Your task to perform on an android device: Open accessibility settings Image 0: 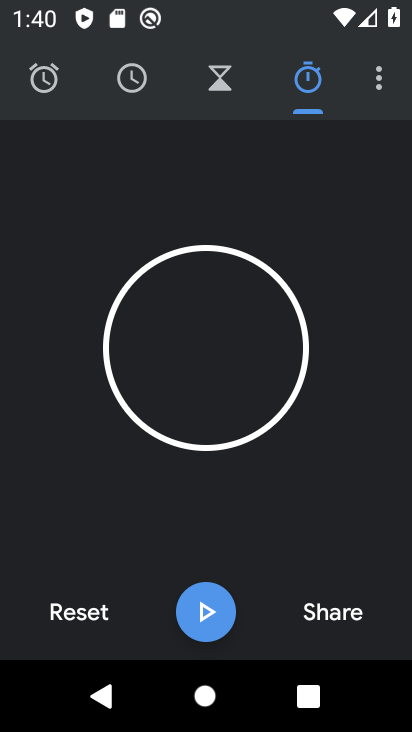
Step 0: press back button
Your task to perform on an android device: Open accessibility settings Image 1: 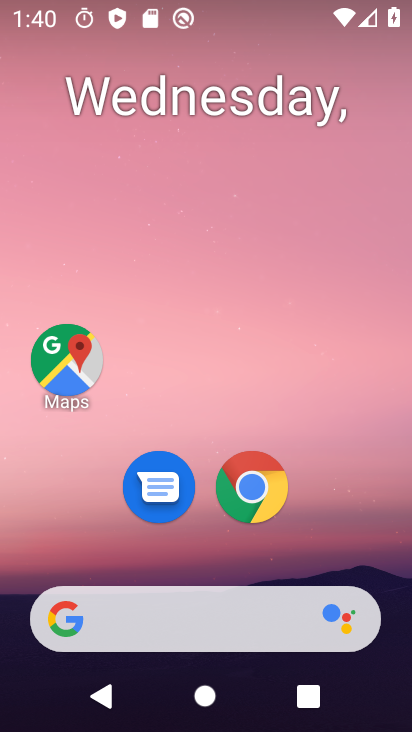
Step 1: drag from (84, 543) to (263, 26)
Your task to perform on an android device: Open accessibility settings Image 2: 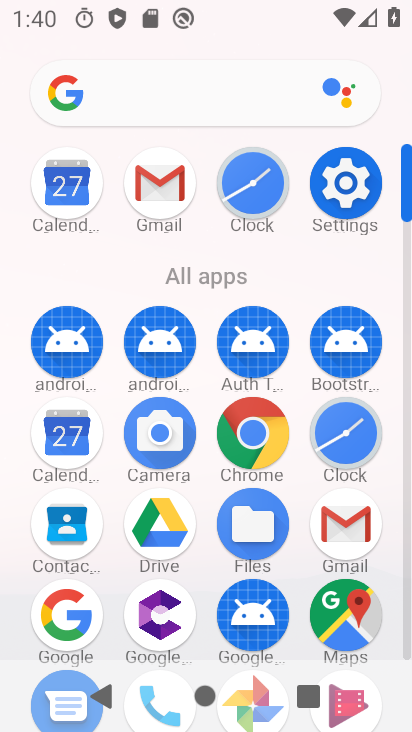
Step 2: click (347, 185)
Your task to perform on an android device: Open accessibility settings Image 3: 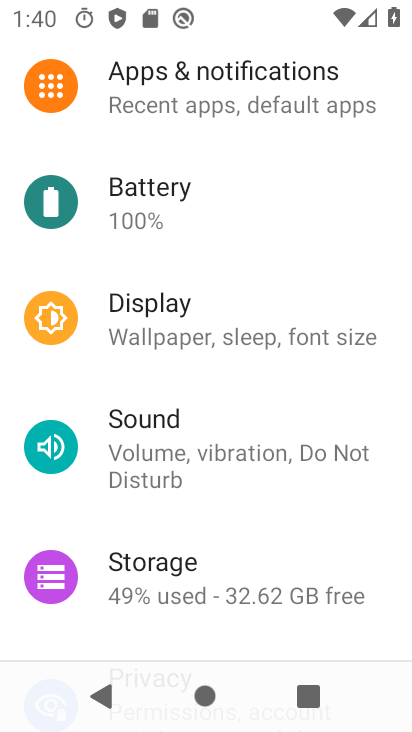
Step 3: drag from (187, 575) to (286, 82)
Your task to perform on an android device: Open accessibility settings Image 4: 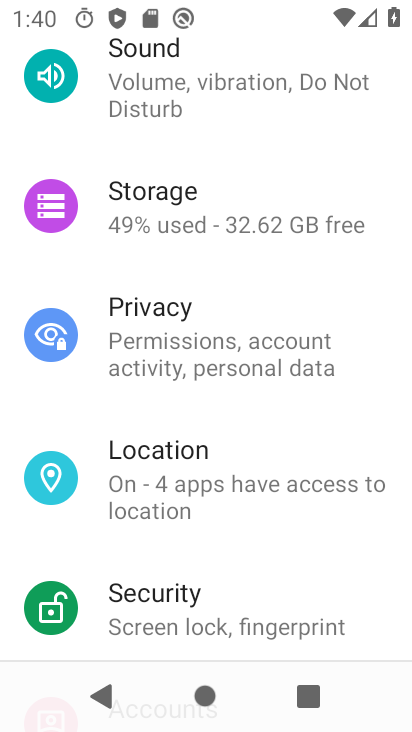
Step 4: drag from (293, 498) to (342, 96)
Your task to perform on an android device: Open accessibility settings Image 5: 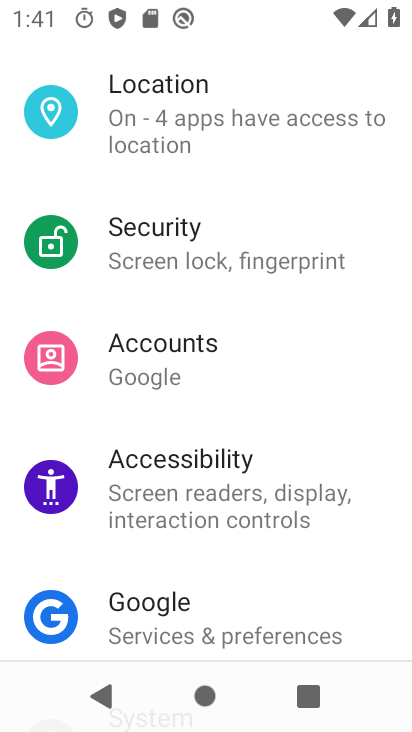
Step 5: click (115, 496)
Your task to perform on an android device: Open accessibility settings Image 6: 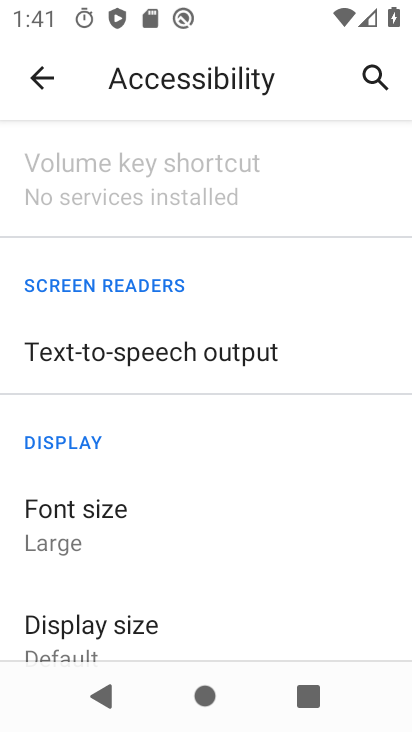
Step 6: task complete